Your task to perform on an android device: Go to sound settings Image 0: 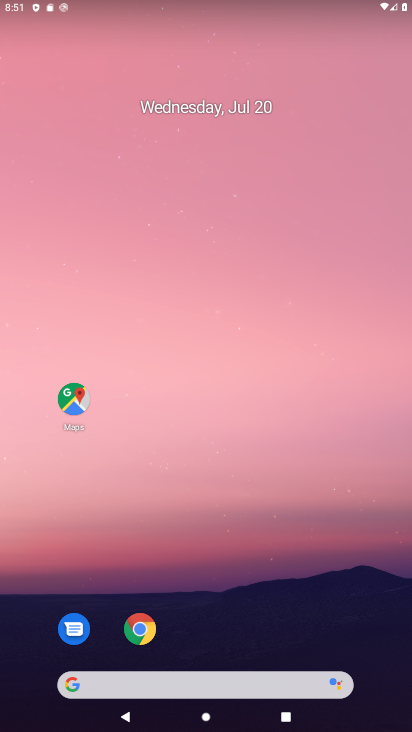
Step 0: drag from (271, 646) to (86, 0)
Your task to perform on an android device: Go to sound settings Image 1: 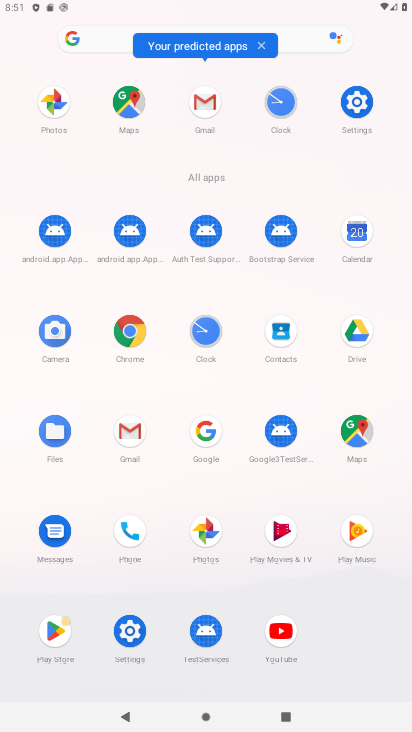
Step 1: click (365, 108)
Your task to perform on an android device: Go to sound settings Image 2: 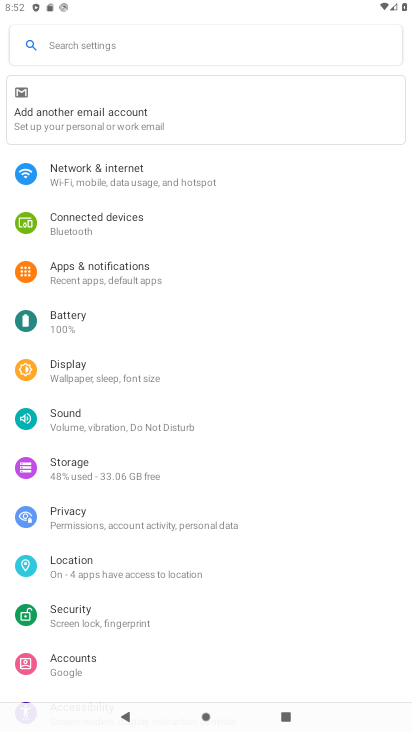
Step 2: click (96, 425)
Your task to perform on an android device: Go to sound settings Image 3: 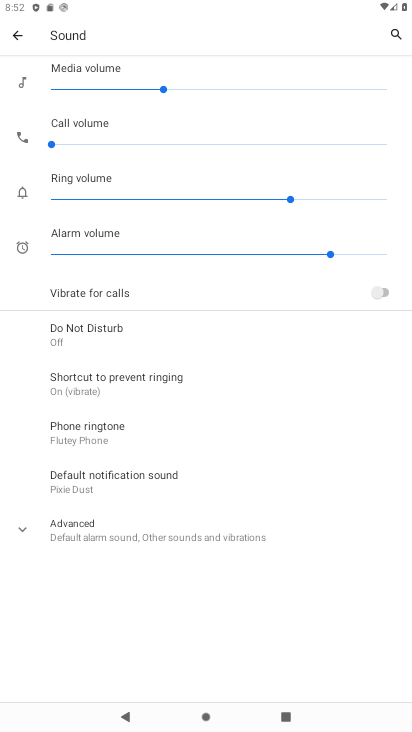
Step 3: task complete